Your task to perform on an android device: turn off airplane mode Image 0: 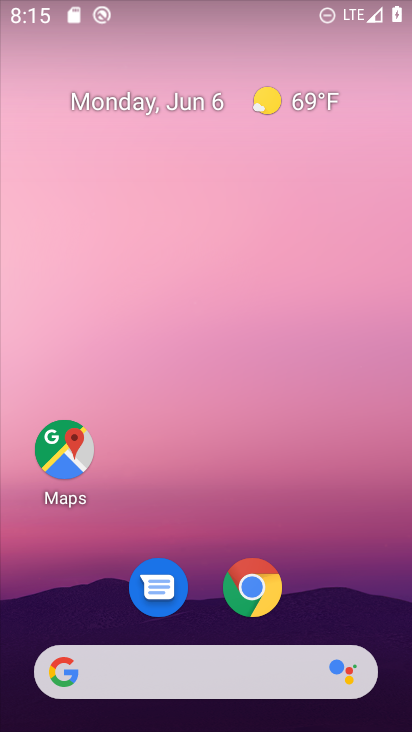
Step 0: drag from (332, 489) to (276, 144)
Your task to perform on an android device: turn off airplane mode Image 1: 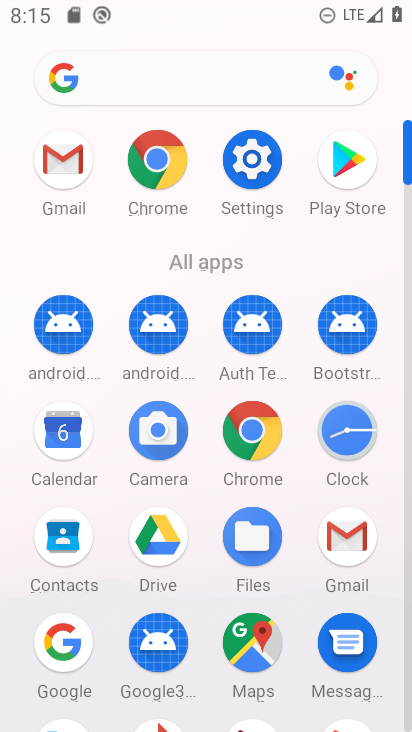
Step 1: click (253, 161)
Your task to perform on an android device: turn off airplane mode Image 2: 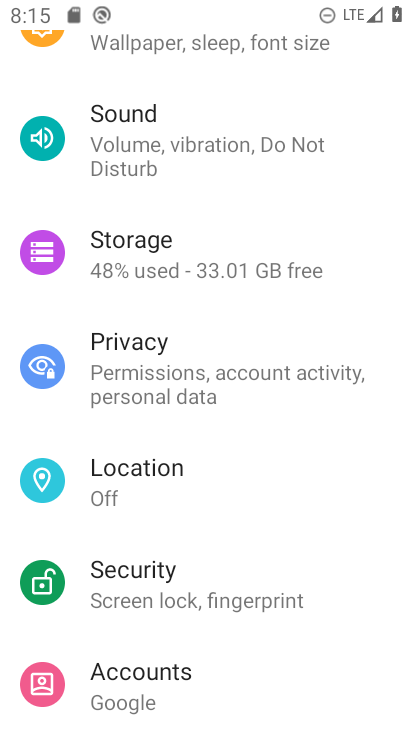
Step 2: drag from (253, 161) to (239, 629)
Your task to perform on an android device: turn off airplane mode Image 3: 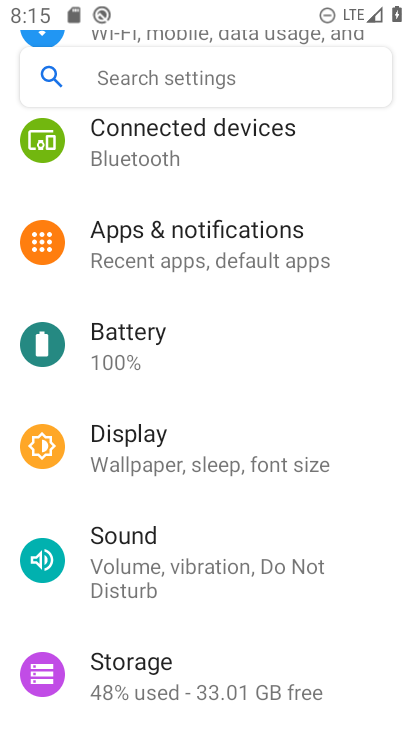
Step 3: drag from (209, 170) to (243, 594)
Your task to perform on an android device: turn off airplane mode Image 4: 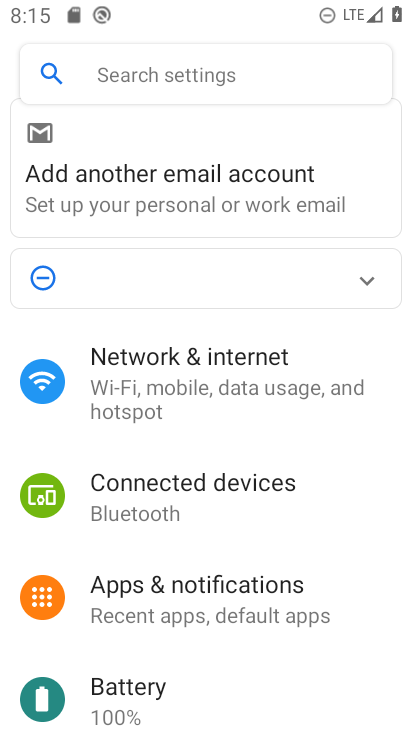
Step 4: click (166, 364)
Your task to perform on an android device: turn off airplane mode Image 5: 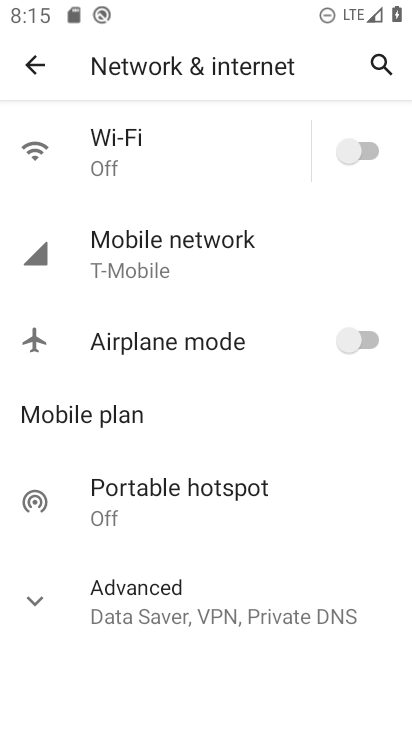
Step 5: task complete